Your task to perform on an android device: Go to internet settings Image 0: 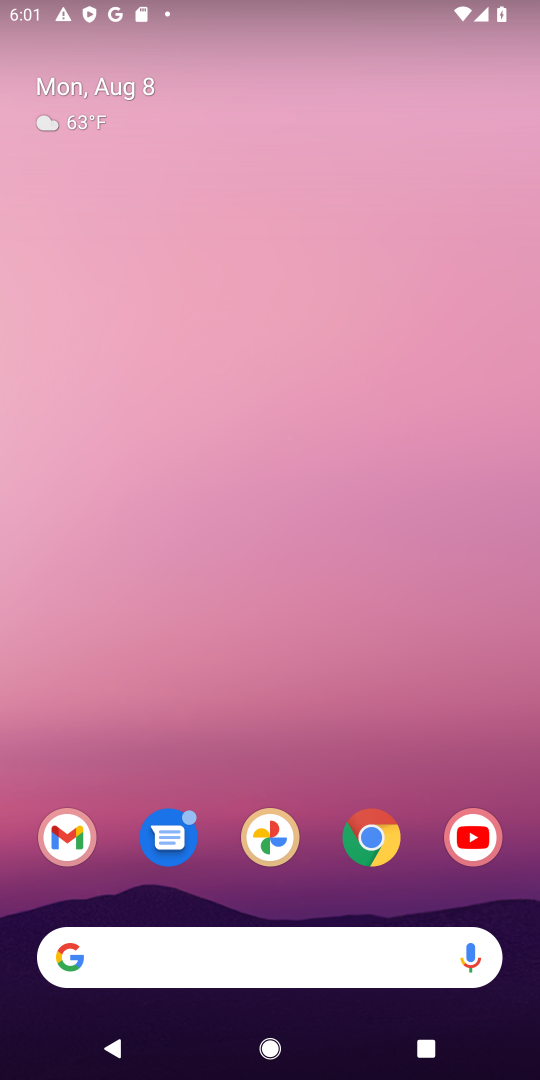
Step 0: drag from (210, 935) to (198, 11)
Your task to perform on an android device: Go to internet settings Image 1: 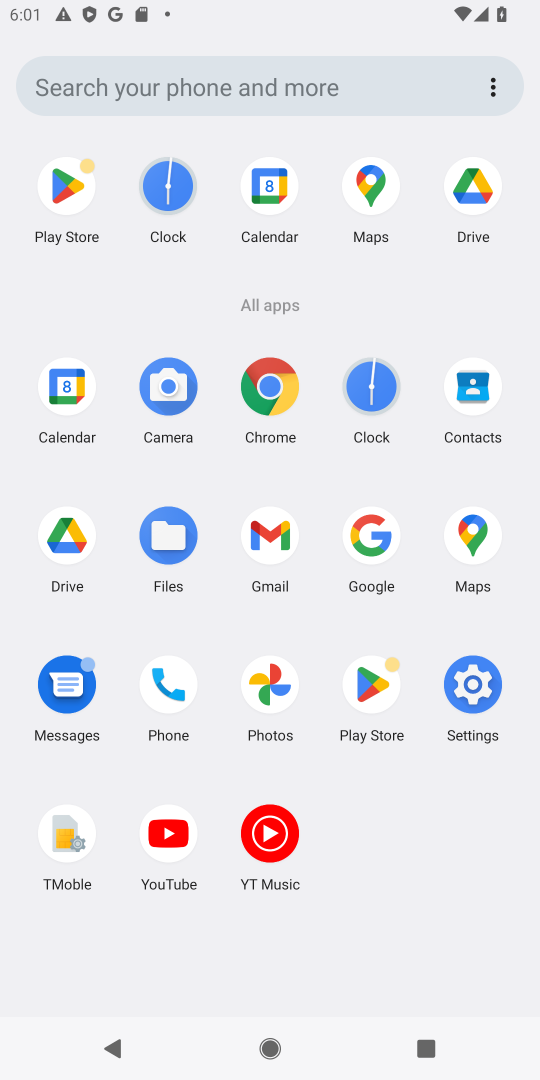
Step 1: click (477, 673)
Your task to perform on an android device: Go to internet settings Image 2: 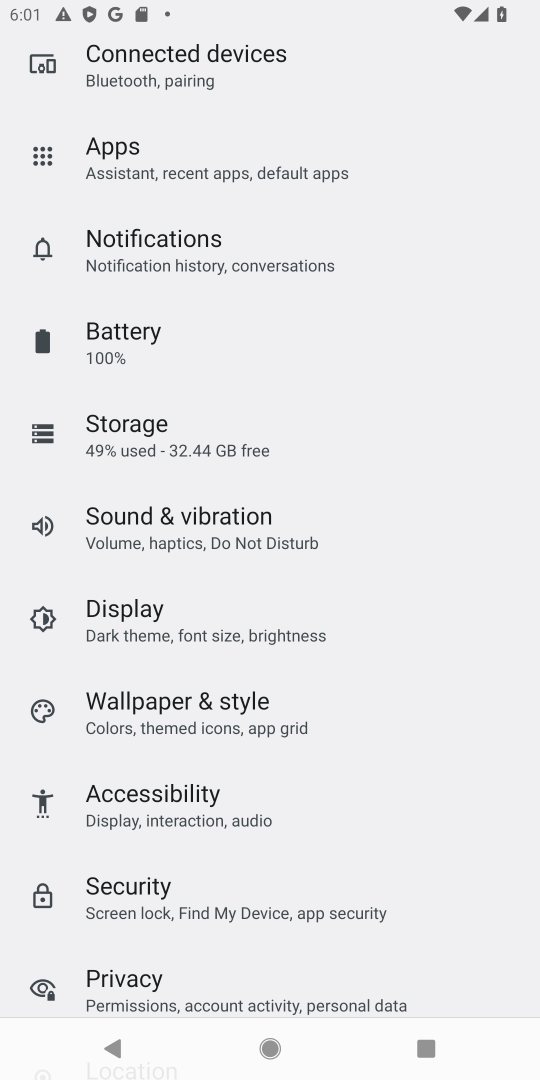
Step 2: drag from (186, 232) to (285, 921)
Your task to perform on an android device: Go to internet settings Image 3: 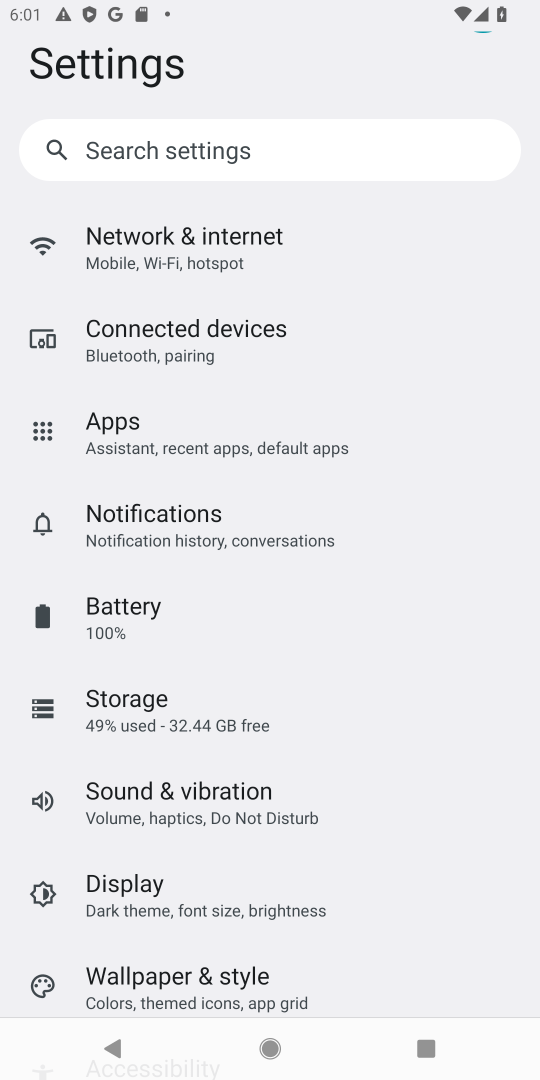
Step 3: click (214, 240)
Your task to perform on an android device: Go to internet settings Image 4: 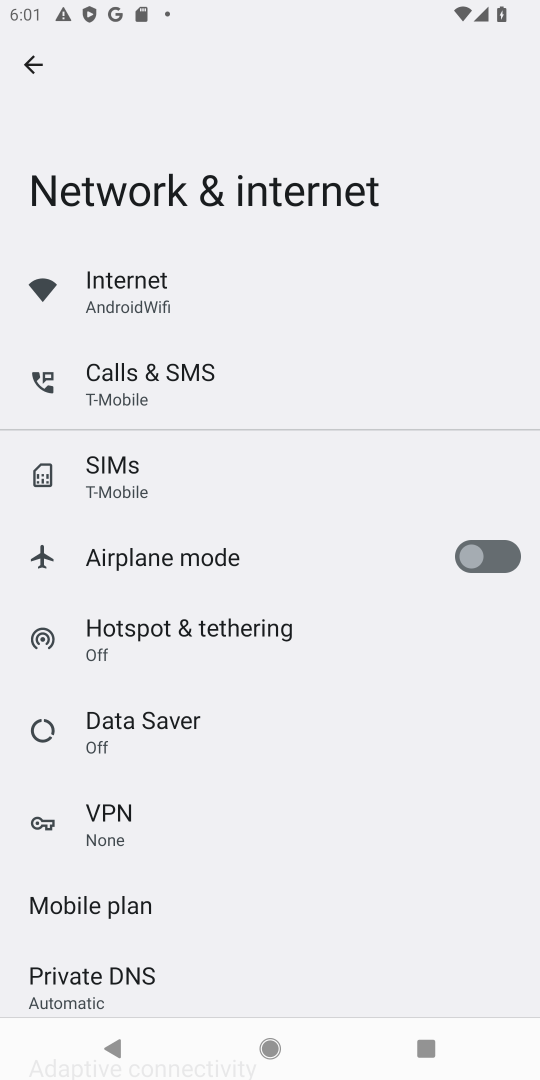
Step 4: click (150, 288)
Your task to perform on an android device: Go to internet settings Image 5: 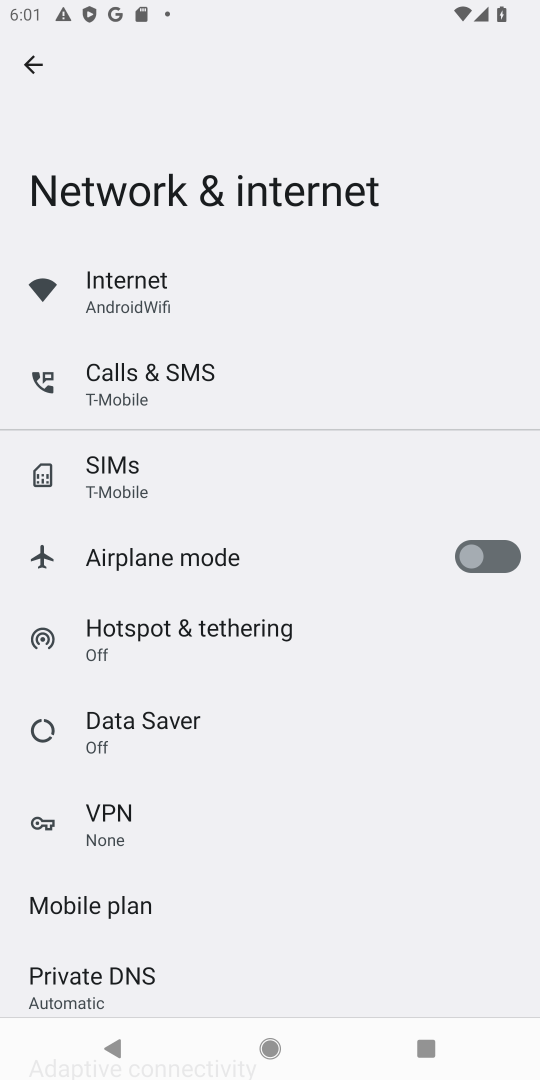
Step 5: task complete